Your task to perform on an android device: Is it going to rain tomorrow? Image 0: 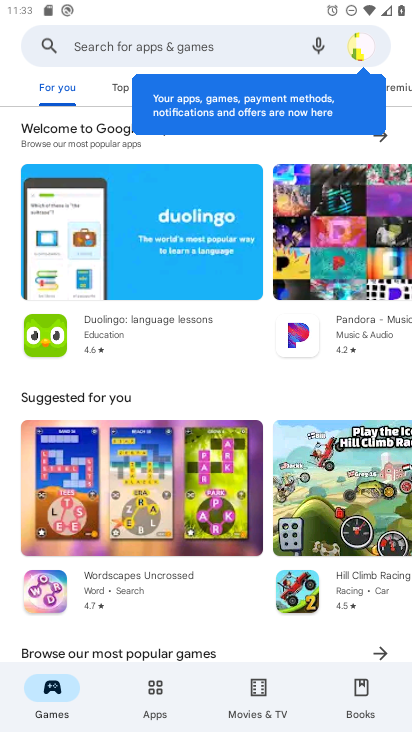
Step 0: press home button
Your task to perform on an android device: Is it going to rain tomorrow? Image 1: 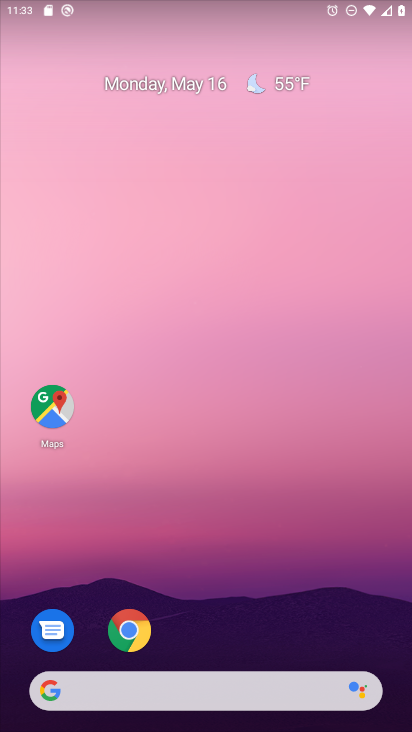
Step 1: drag from (218, 642) to (233, 235)
Your task to perform on an android device: Is it going to rain tomorrow? Image 2: 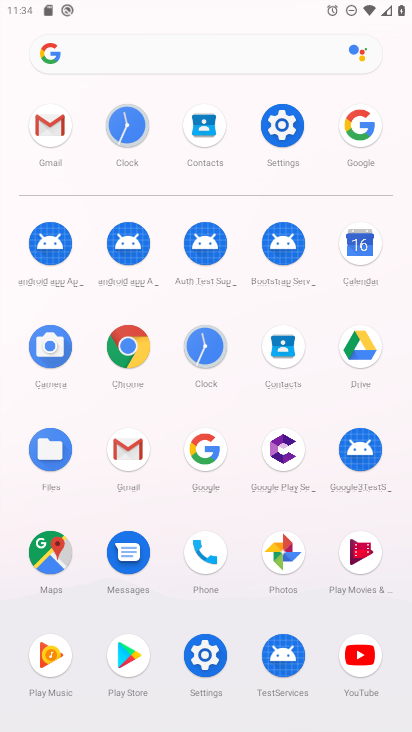
Step 2: click (342, 141)
Your task to perform on an android device: Is it going to rain tomorrow? Image 3: 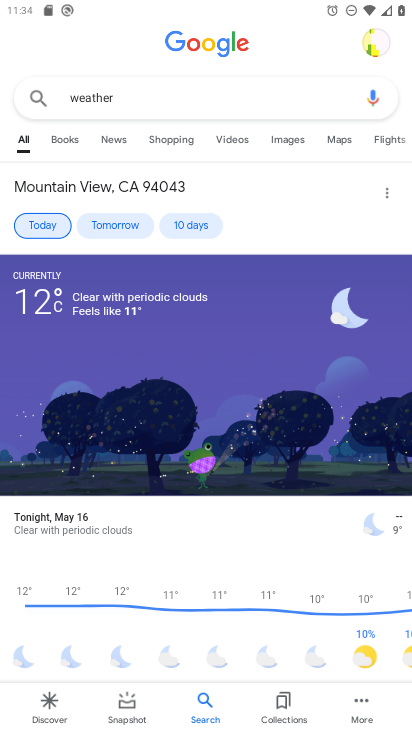
Step 3: click (131, 223)
Your task to perform on an android device: Is it going to rain tomorrow? Image 4: 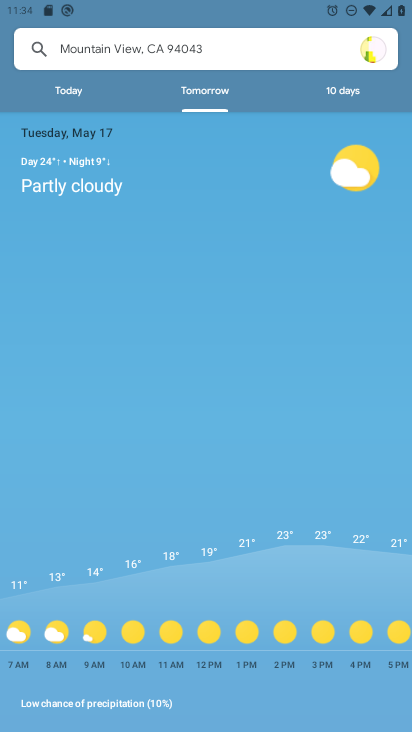
Step 4: task complete